Your task to perform on an android device: change the upload size in google photos Image 0: 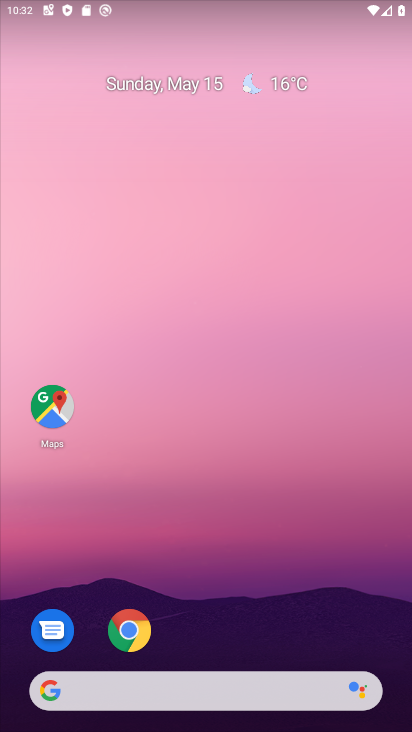
Step 0: drag from (198, 390) to (198, 219)
Your task to perform on an android device: change the upload size in google photos Image 1: 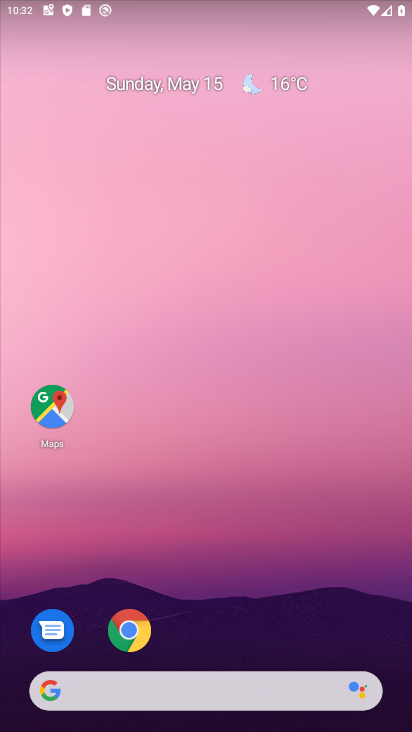
Step 1: drag from (222, 650) to (226, 278)
Your task to perform on an android device: change the upload size in google photos Image 2: 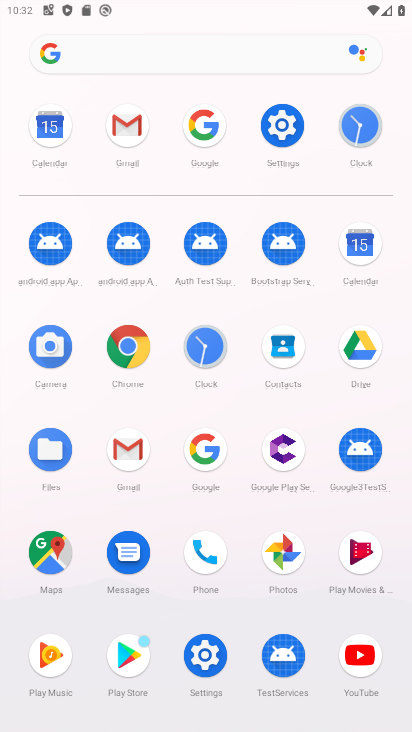
Step 2: click (269, 544)
Your task to perform on an android device: change the upload size in google photos Image 3: 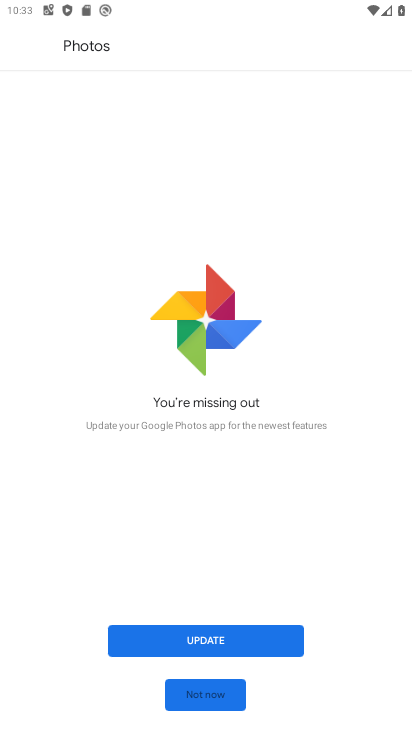
Step 3: click (201, 701)
Your task to perform on an android device: change the upload size in google photos Image 4: 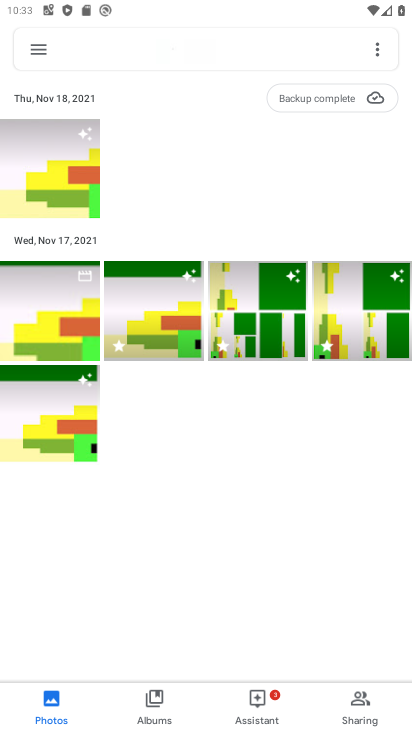
Step 4: click (33, 41)
Your task to perform on an android device: change the upload size in google photos Image 5: 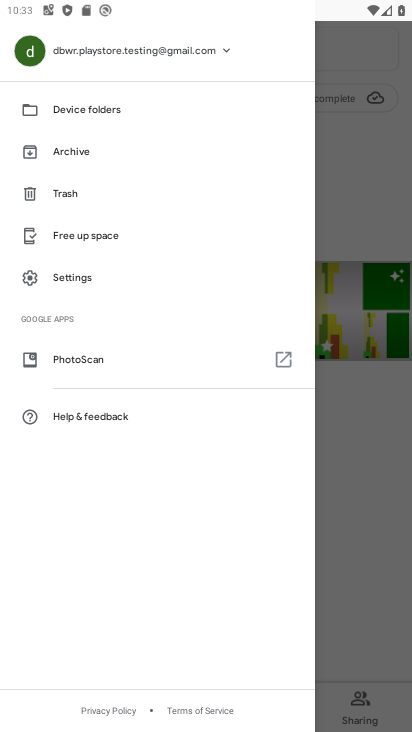
Step 5: click (75, 276)
Your task to perform on an android device: change the upload size in google photos Image 6: 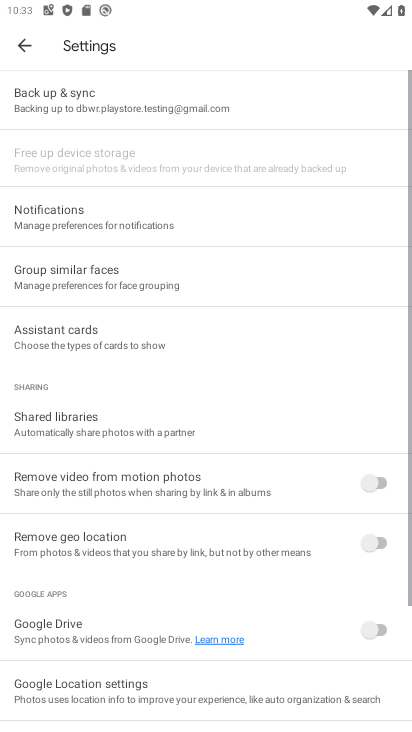
Step 6: click (76, 102)
Your task to perform on an android device: change the upload size in google photos Image 7: 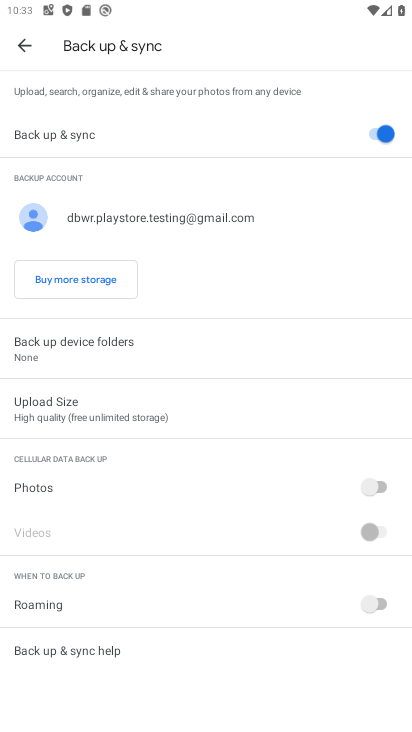
Step 7: click (93, 395)
Your task to perform on an android device: change the upload size in google photos Image 8: 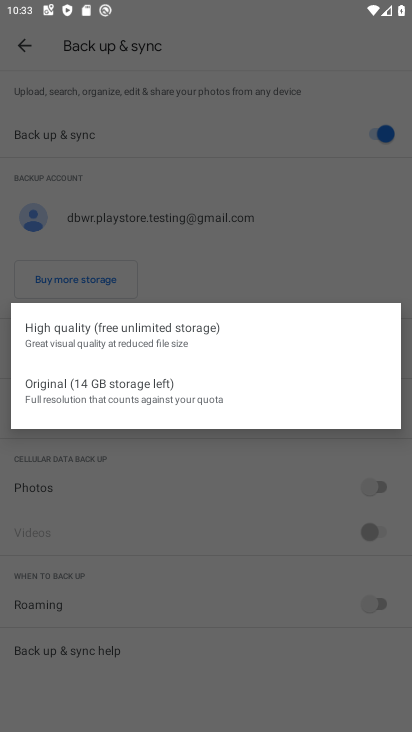
Step 8: click (104, 397)
Your task to perform on an android device: change the upload size in google photos Image 9: 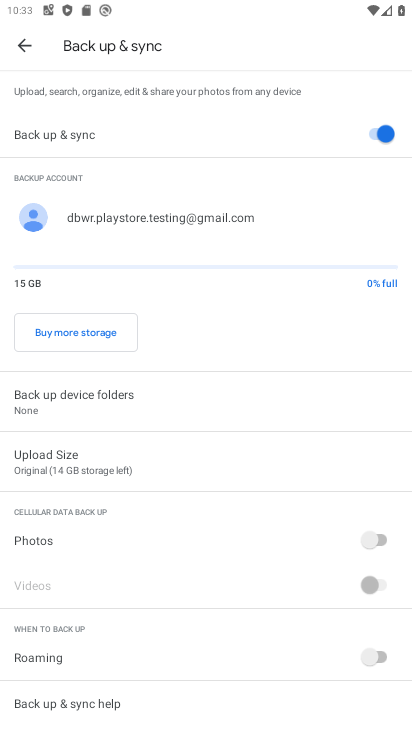
Step 9: task complete